Your task to perform on an android device: Open calendar and show me the second week of next month Image 0: 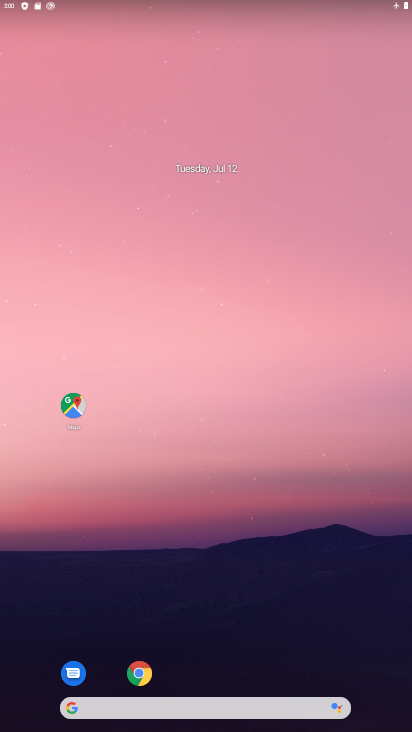
Step 0: drag from (192, 711) to (265, 197)
Your task to perform on an android device: Open calendar and show me the second week of next month Image 1: 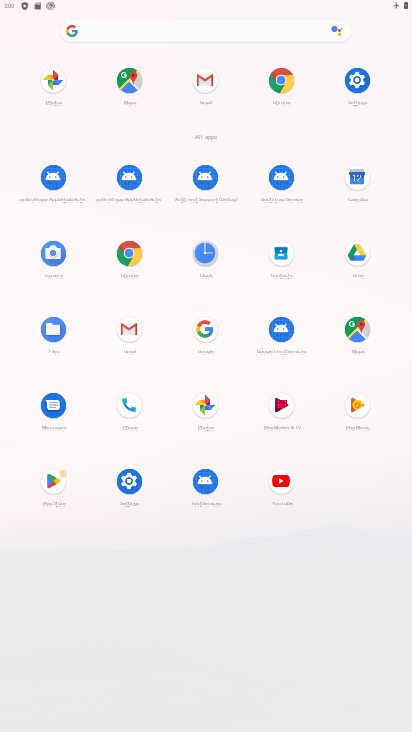
Step 1: click (356, 178)
Your task to perform on an android device: Open calendar and show me the second week of next month Image 2: 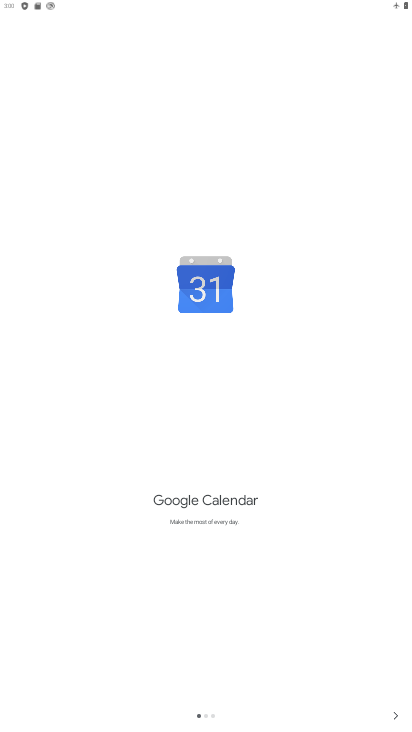
Step 2: click (398, 715)
Your task to perform on an android device: Open calendar and show me the second week of next month Image 3: 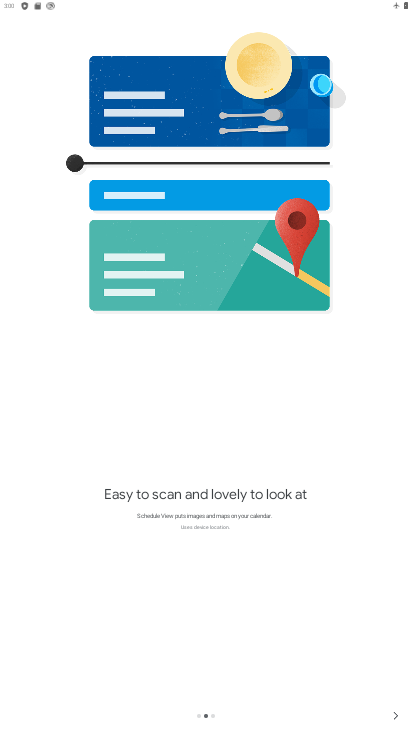
Step 3: click (398, 715)
Your task to perform on an android device: Open calendar and show me the second week of next month Image 4: 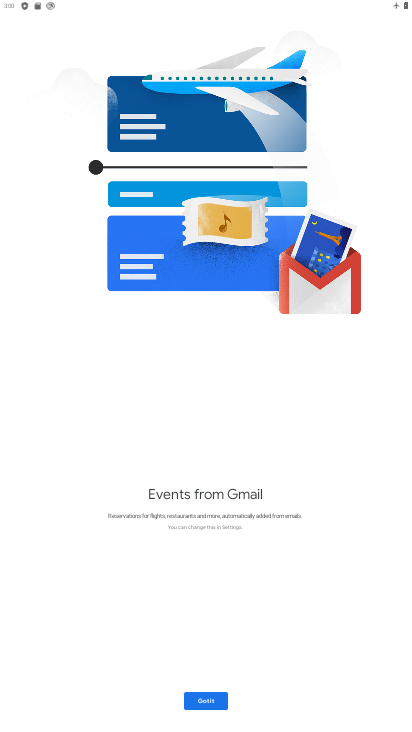
Step 4: click (209, 700)
Your task to perform on an android device: Open calendar and show me the second week of next month Image 5: 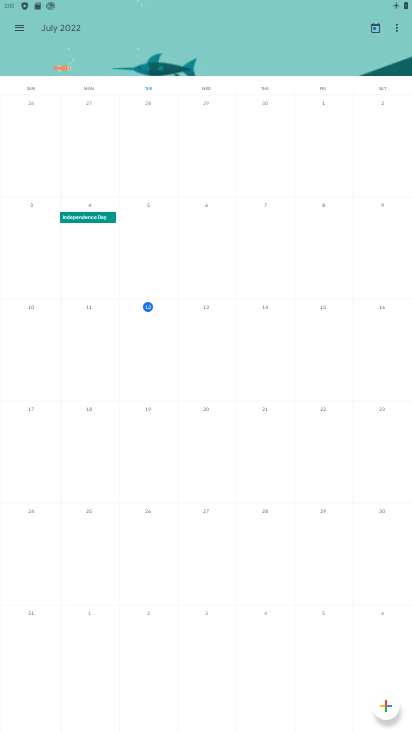
Step 5: drag from (267, 370) to (22, 474)
Your task to perform on an android device: Open calendar and show me the second week of next month Image 6: 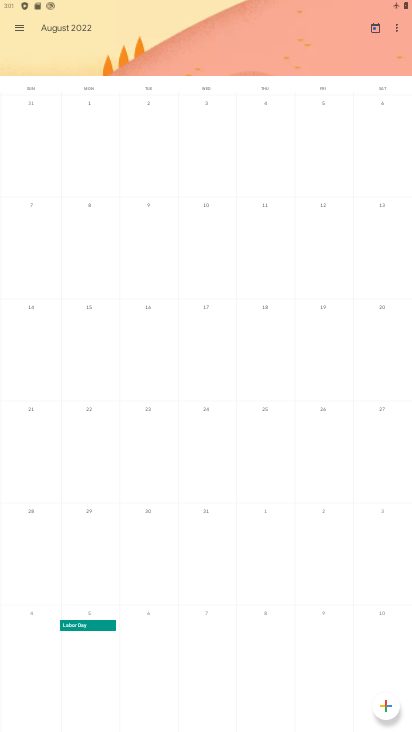
Step 6: click (101, 250)
Your task to perform on an android device: Open calendar and show me the second week of next month Image 7: 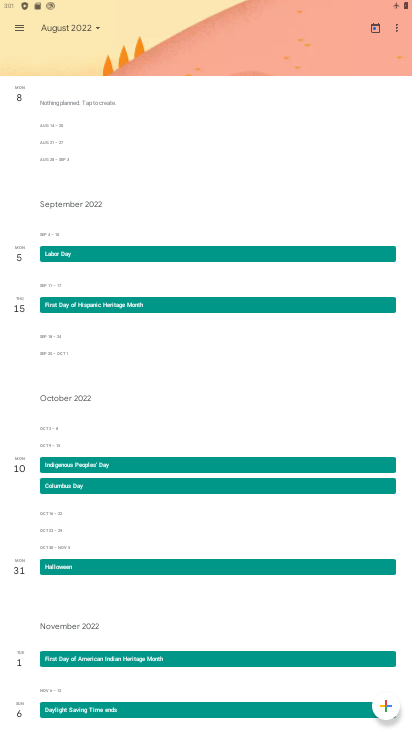
Step 7: click (25, 31)
Your task to perform on an android device: Open calendar and show me the second week of next month Image 8: 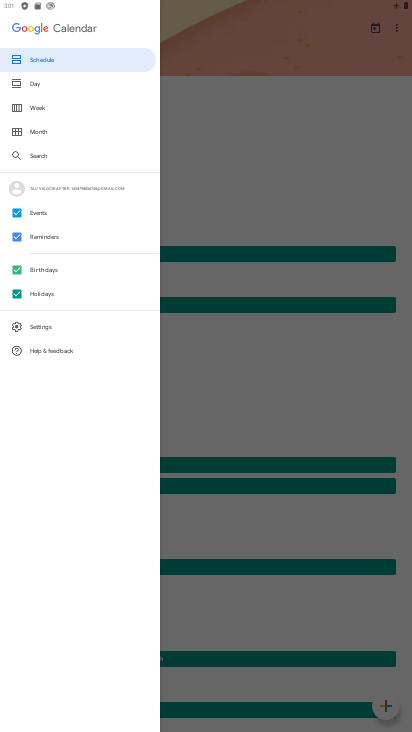
Step 8: click (49, 107)
Your task to perform on an android device: Open calendar and show me the second week of next month Image 9: 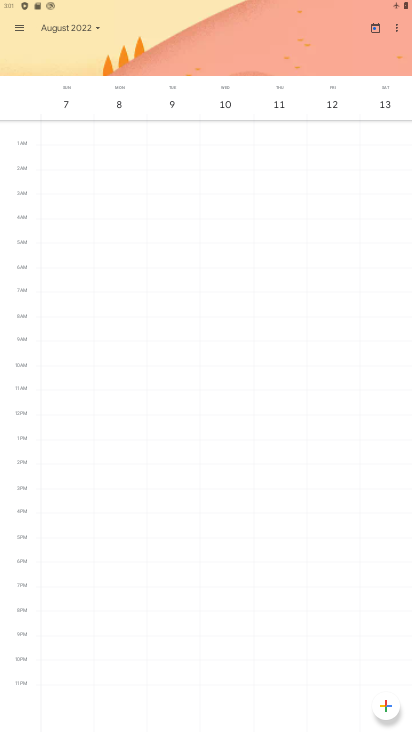
Step 9: task complete